Your task to perform on an android device: Open the phone app and click the voicemail tab. Image 0: 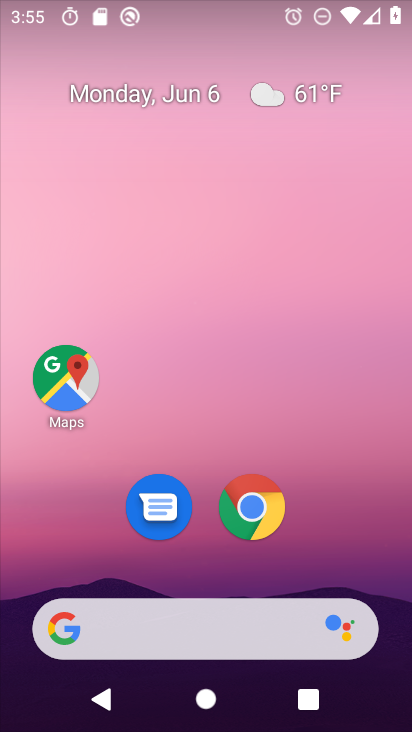
Step 0: drag from (197, 565) to (210, 156)
Your task to perform on an android device: Open the phone app and click the voicemail tab. Image 1: 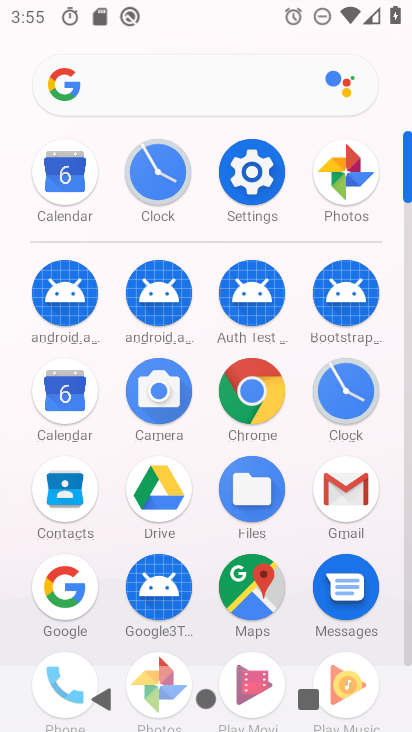
Step 1: drag from (118, 479) to (131, 235)
Your task to perform on an android device: Open the phone app and click the voicemail tab. Image 2: 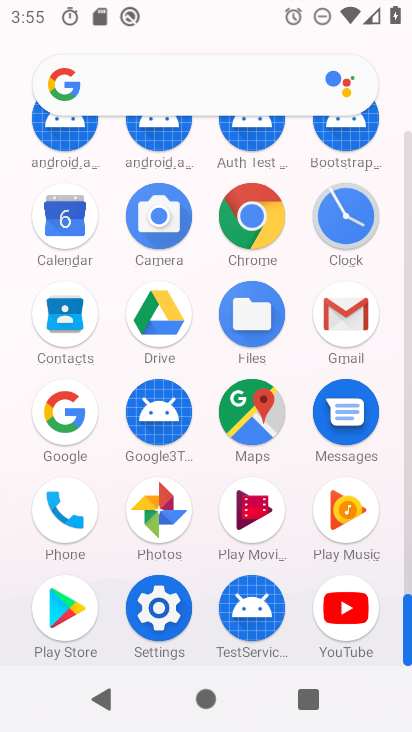
Step 2: click (69, 509)
Your task to perform on an android device: Open the phone app and click the voicemail tab. Image 3: 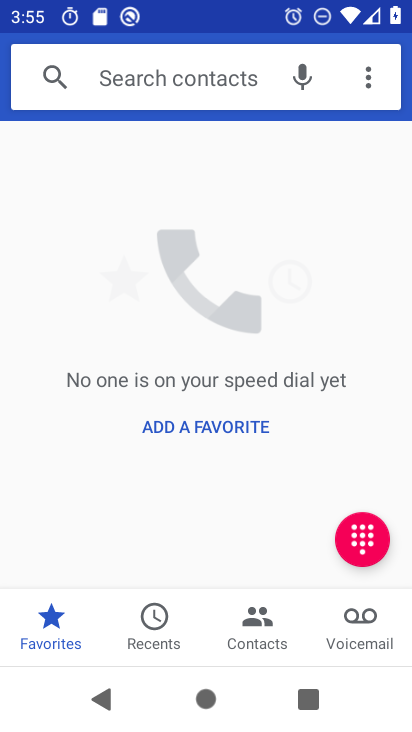
Step 3: click (364, 623)
Your task to perform on an android device: Open the phone app and click the voicemail tab. Image 4: 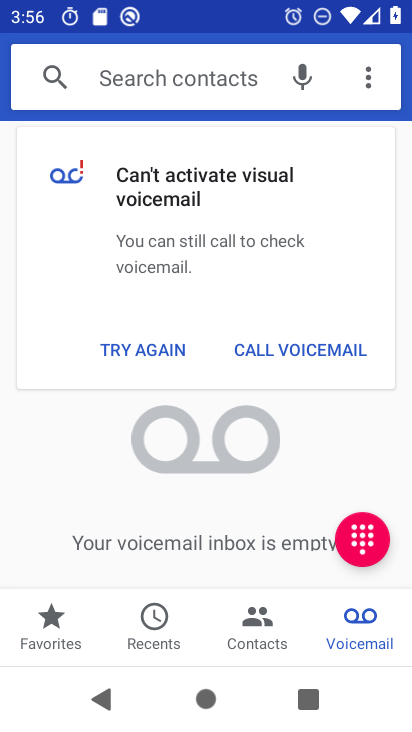
Step 4: task complete